Your task to perform on an android device: change the clock display to show seconds Image 0: 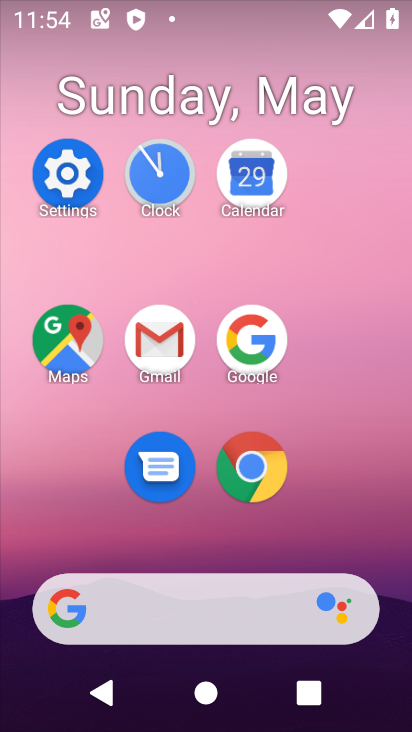
Step 0: click (141, 201)
Your task to perform on an android device: change the clock display to show seconds Image 1: 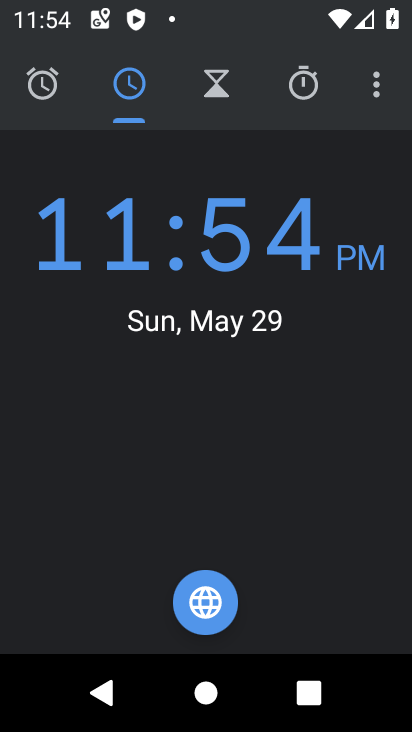
Step 1: click (377, 98)
Your task to perform on an android device: change the clock display to show seconds Image 2: 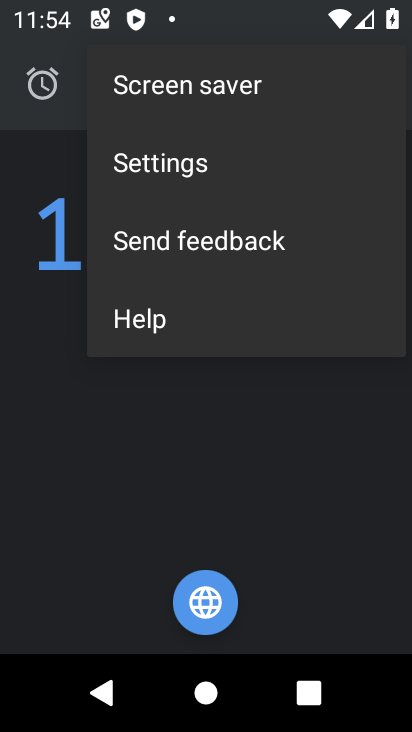
Step 2: click (263, 159)
Your task to perform on an android device: change the clock display to show seconds Image 3: 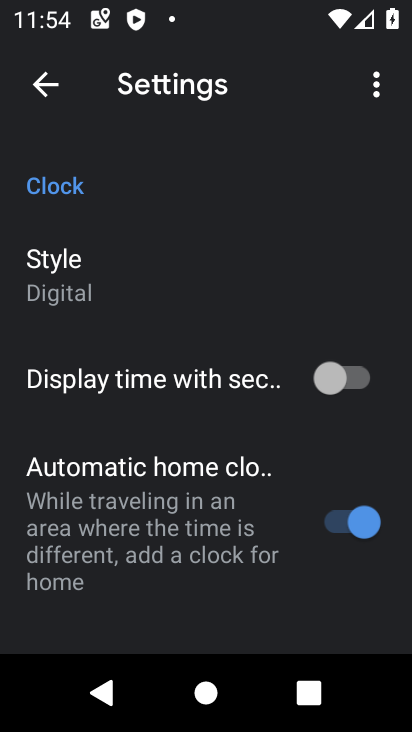
Step 3: click (350, 369)
Your task to perform on an android device: change the clock display to show seconds Image 4: 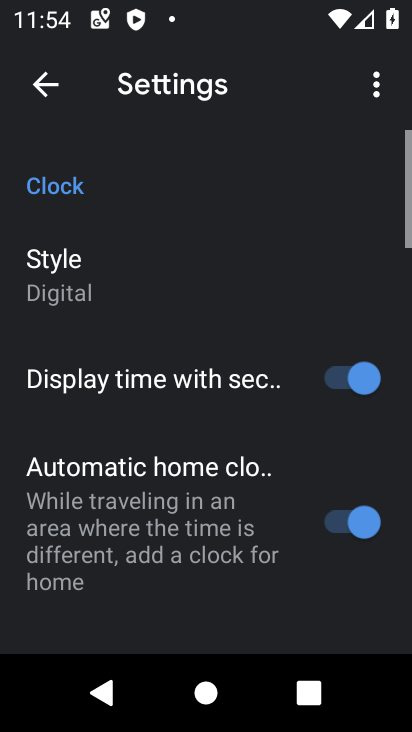
Step 4: task complete